Your task to perform on an android device: move a message to another label in the gmail app Image 0: 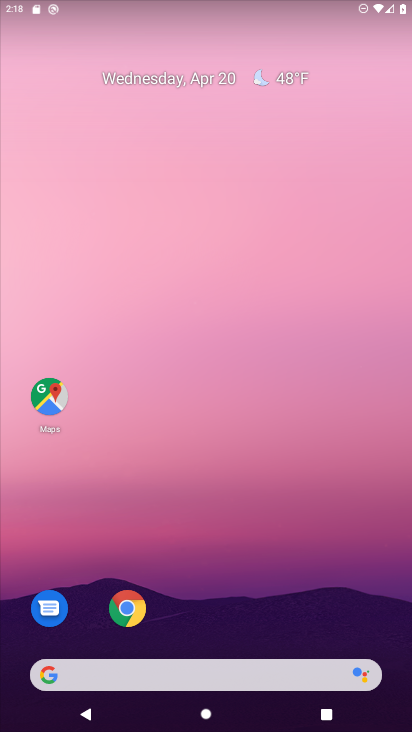
Step 0: drag from (197, 613) to (141, 163)
Your task to perform on an android device: move a message to another label in the gmail app Image 1: 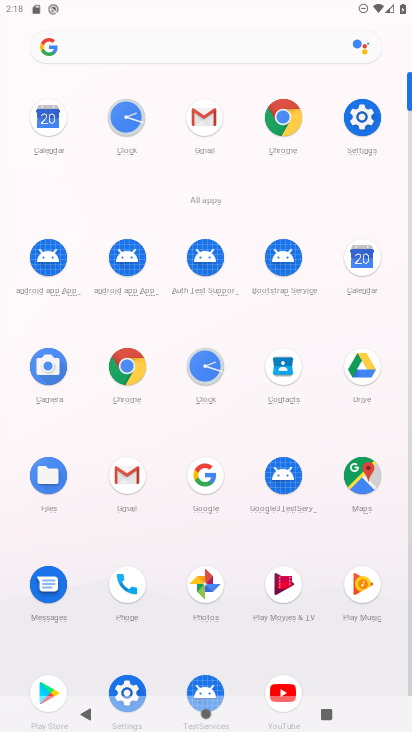
Step 1: click (209, 140)
Your task to perform on an android device: move a message to another label in the gmail app Image 2: 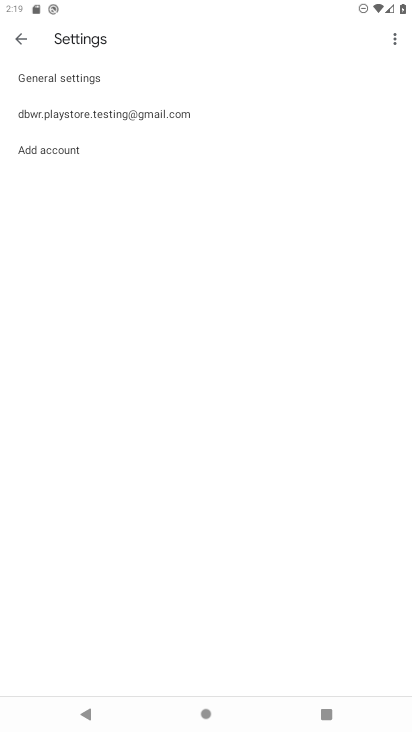
Step 2: click (29, 38)
Your task to perform on an android device: move a message to another label in the gmail app Image 3: 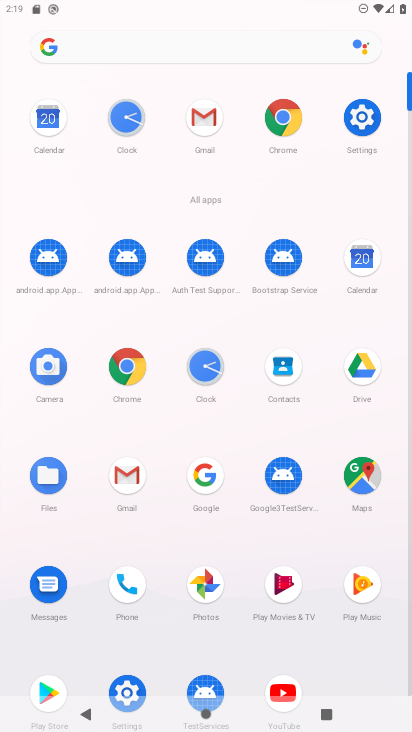
Step 3: click (208, 116)
Your task to perform on an android device: move a message to another label in the gmail app Image 4: 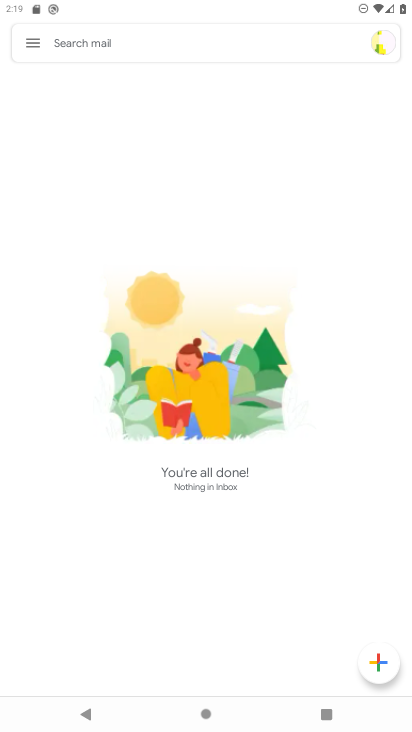
Step 4: click (29, 45)
Your task to perform on an android device: move a message to another label in the gmail app Image 5: 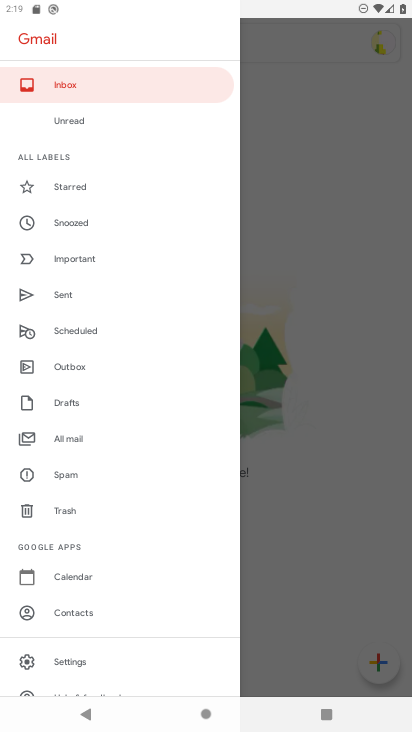
Step 5: click (85, 434)
Your task to perform on an android device: move a message to another label in the gmail app Image 6: 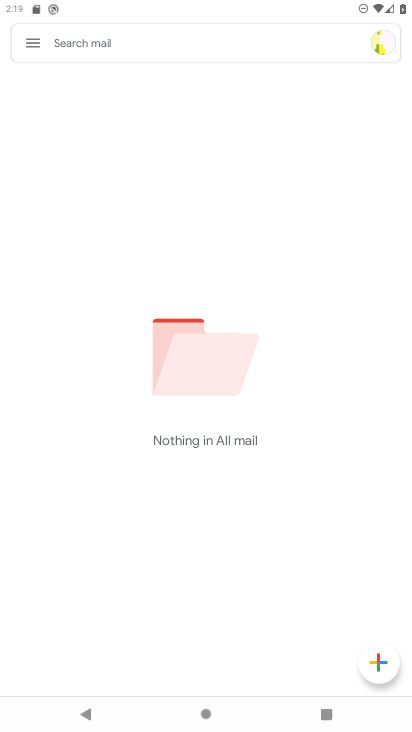
Step 6: task complete